Your task to perform on an android device: toggle airplane mode Image 0: 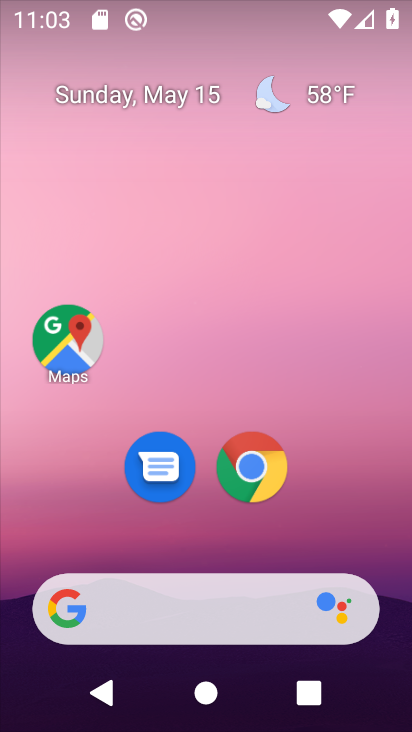
Step 0: press home button
Your task to perform on an android device: toggle airplane mode Image 1: 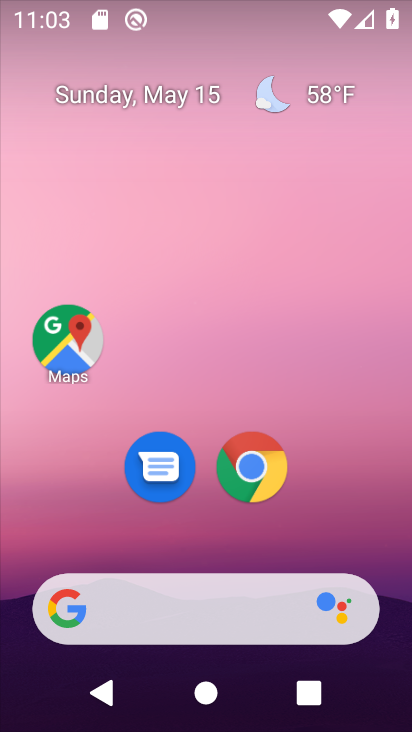
Step 1: drag from (244, 7) to (260, 524)
Your task to perform on an android device: toggle airplane mode Image 2: 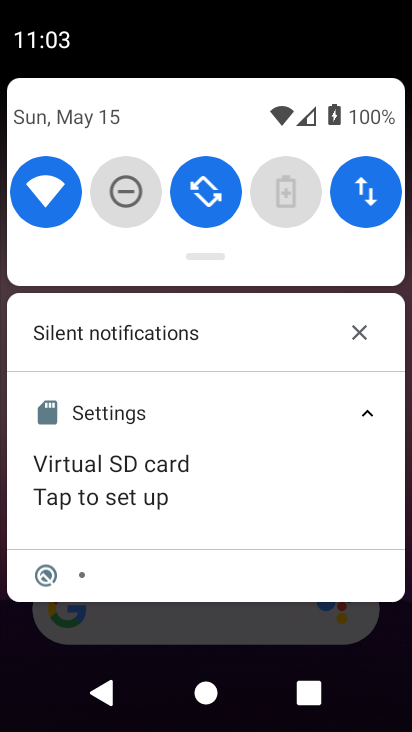
Step 2: drag from (239, 256) to (178, 731)
Your task to perform on an android device: toggle airplane mode Image 3: 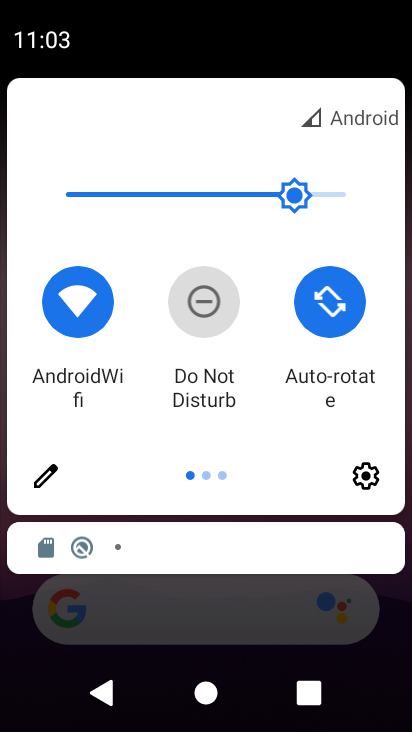
Step 3: drag from (349, 350) to (2, 372)
Your task to perform on an android device: toggle airplane mode Image 4: 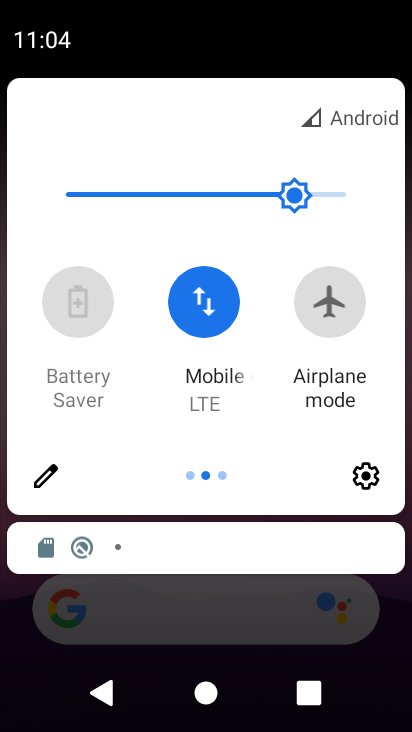
Step 4: click (343, 314)
Your task to perform on an android device: toggle airplane mode Image 5: 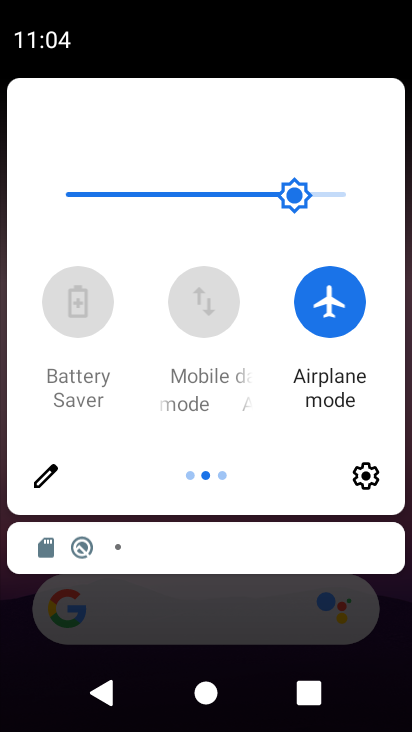
Step 5: task complete